Your task to perform on an android device: Search for a new lipgloss Image 0: 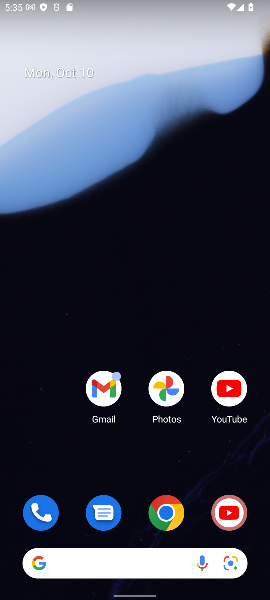
Step 0: click (91, 568)
Your task to perform on an android device: Search for a new lipgloss Image 1: 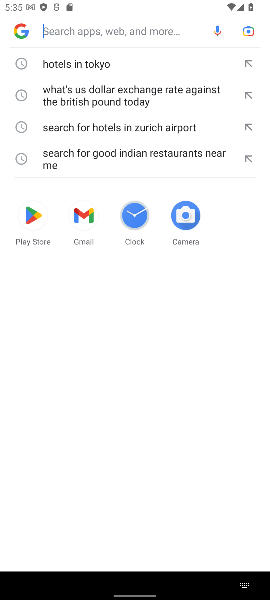
Step 1: click (103, 53)
Your task to perform on an android device: Search for a new lipgloss Image 2: 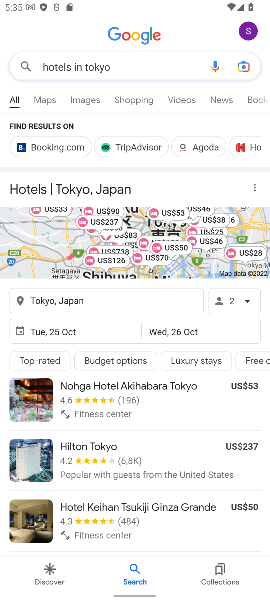
Step 2: click (185, 73)
Your task to perform on an android device: Search for a new lipgloss Image 3: 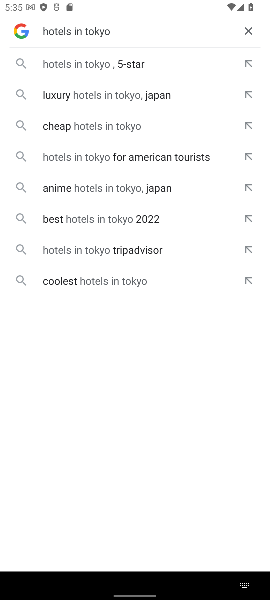
Step 3: click (246, 43)
Your task to perform on an android device: Search for a new lipgloss Image 4: 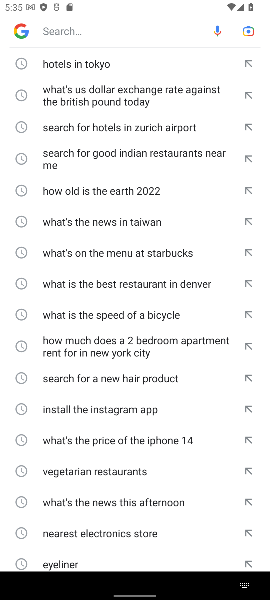
Step 4: type "new lipgloss"
Your task to perform on an android device: Search for a new lipgloss Image 5: 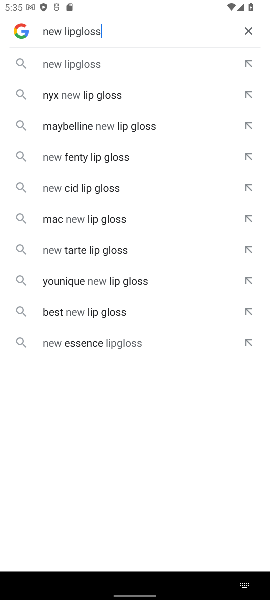
Step 5: click (117, 62)
Your task to perform on an android device: Search for a new lipgloss Image 6: 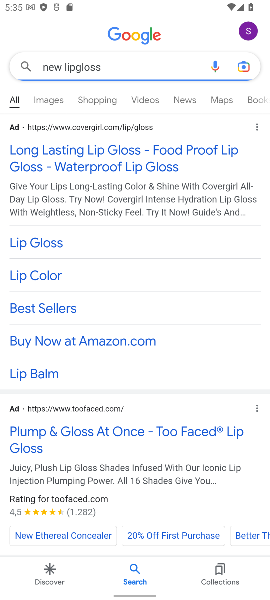
Step 6: task complete